Your task to perform on an android device: Search for Italian restaurants on Maps Image 0: 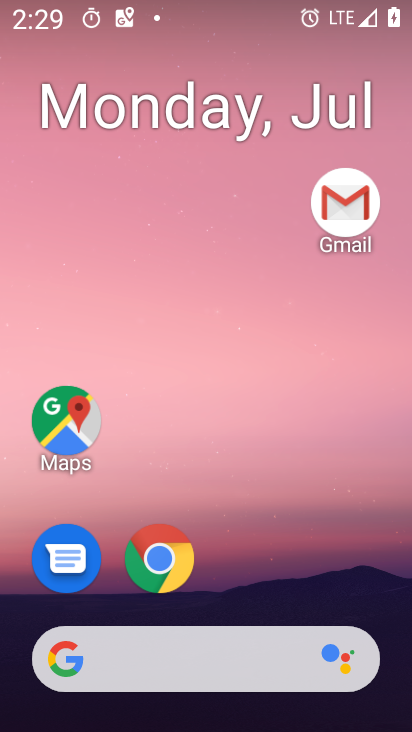
Step 0: drag from (308, 584) to (333, 161)
Your task to perform on an android device: Search for Italian restaurants on Maps Image 1: 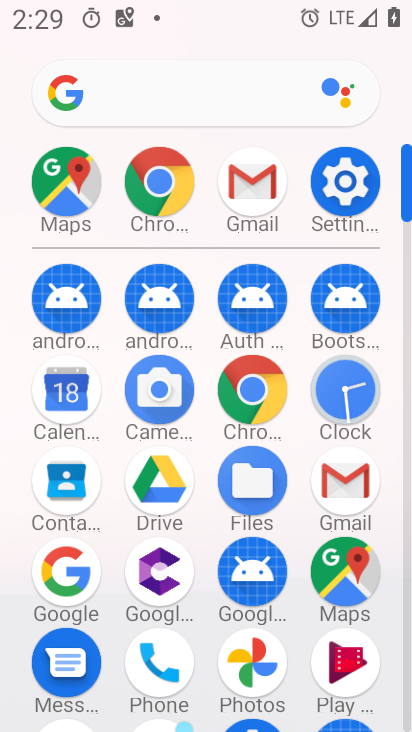
Step 1: click (352, 561)
Your task to perform on an android device: Search for Italian restaurants on Maps Image 2: 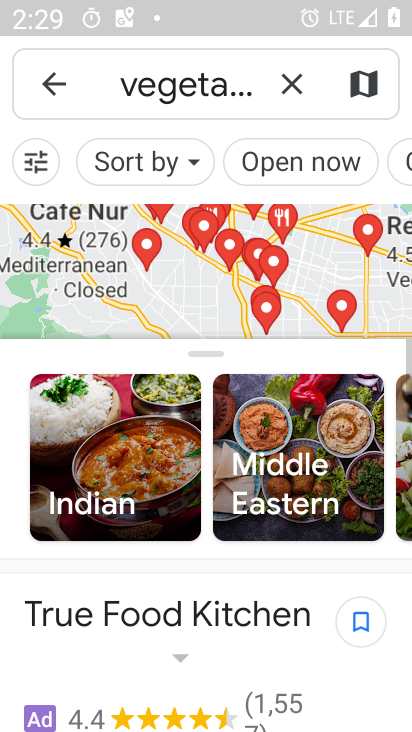
Step 2: press back button
Your task to perform on an android device: Search for Italian restaurants on Maps Image 3: 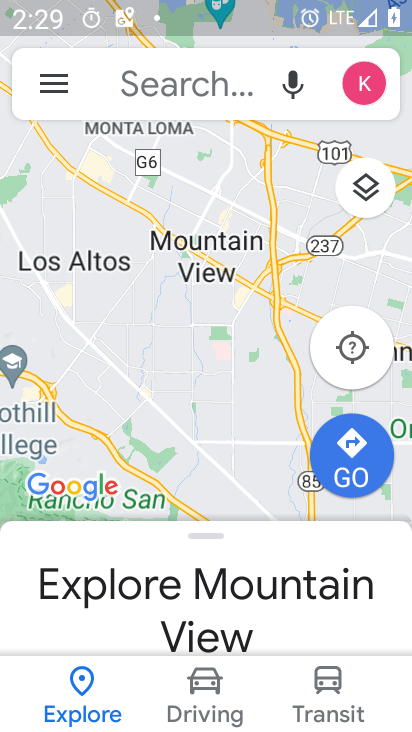
Step 3: click (232, 99)
Your task to perform on an android device: Search for Italian restaurants on Maps Image 4: 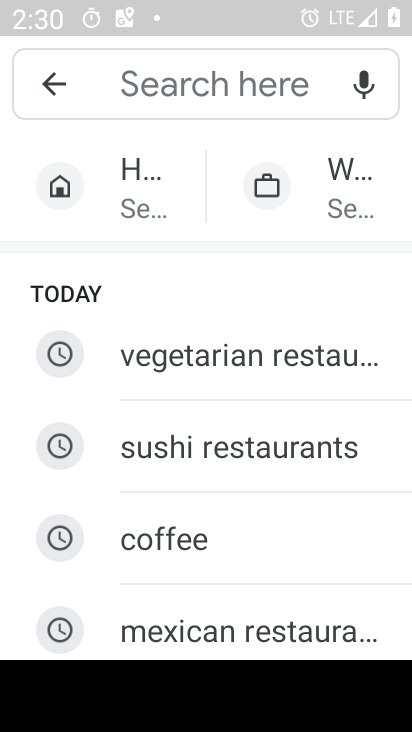
Step 4: type "italian restaurants"
Your task to perform on an android device: Search for Italian restaurants on Maps Image 5: 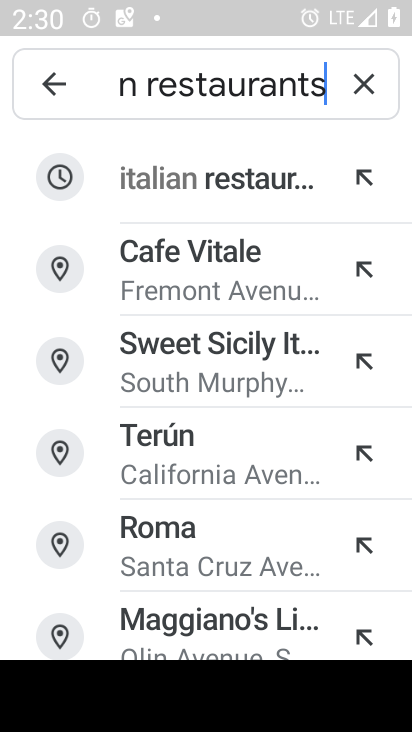
Step 5: click (298, 195)
Your task to perform on an android device: Search for Italian restaurants on Maps Image 6: 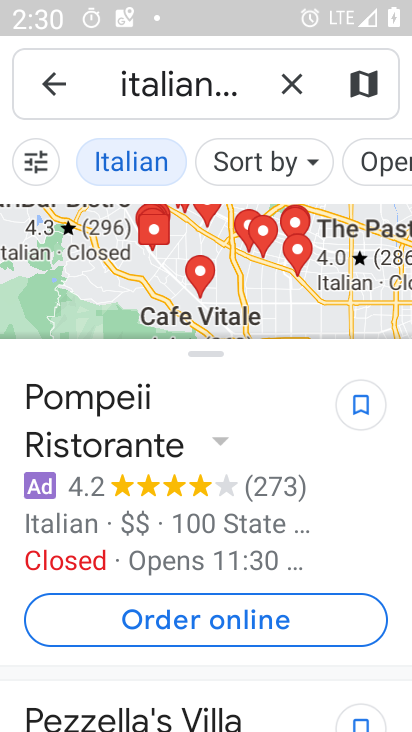
Step 6: task complete